Your task to perform on an android device: turn off data saver in the chrome app Image 0: 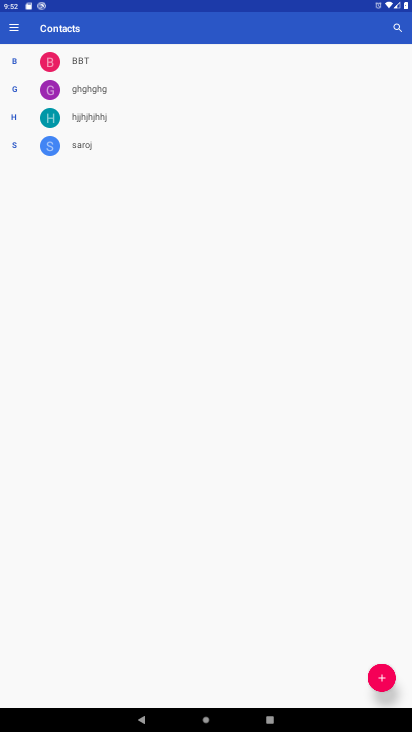
Step 0: press home button
Your task to perform on an android device: turn off data saver in the chrome app Image 1: 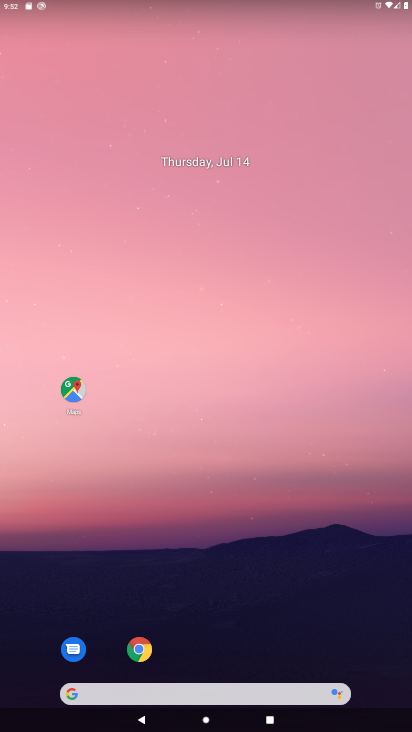
Step 1: click (137, 649)
Your task to perform on an android device: turn off data saver in the chrome app Image 2: 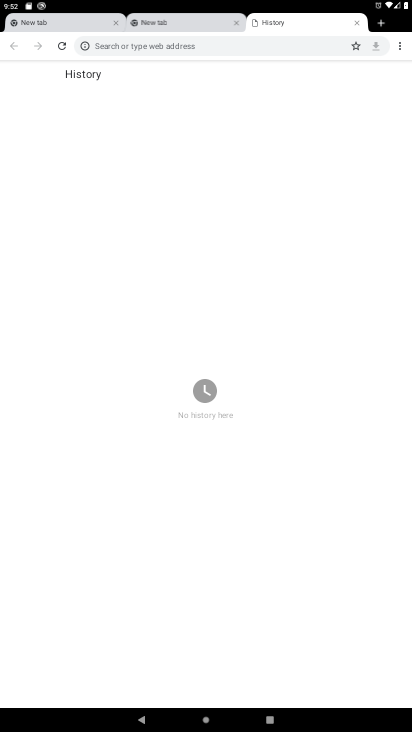
Step 2: click (400, 44)
Your task to perform on an android device: turn off data saver in the chrome app Image 3: 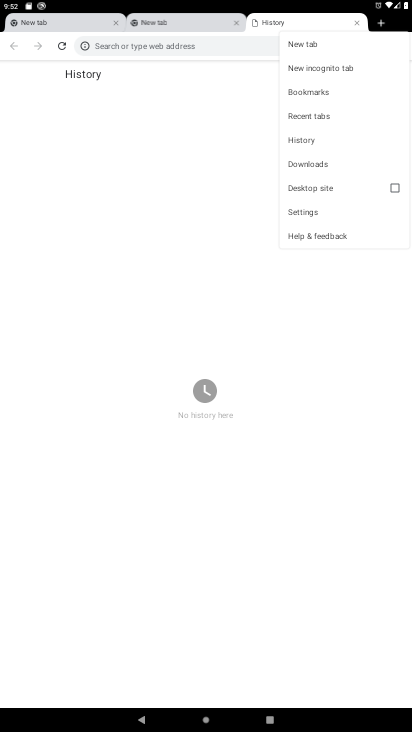
Step 3: click (312, 214)
Your task to perform on an android device: turn off data saver in the chrome app Image 4: 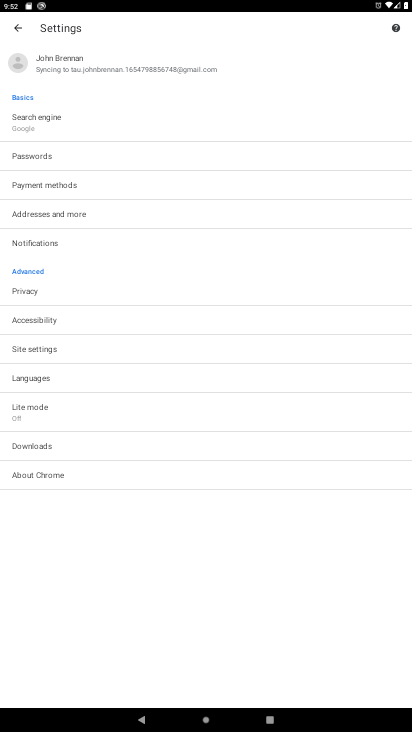
Step 4: click (53, 417)
Your task to perform on an android device: turn off data saver in the chrome app Image 5: 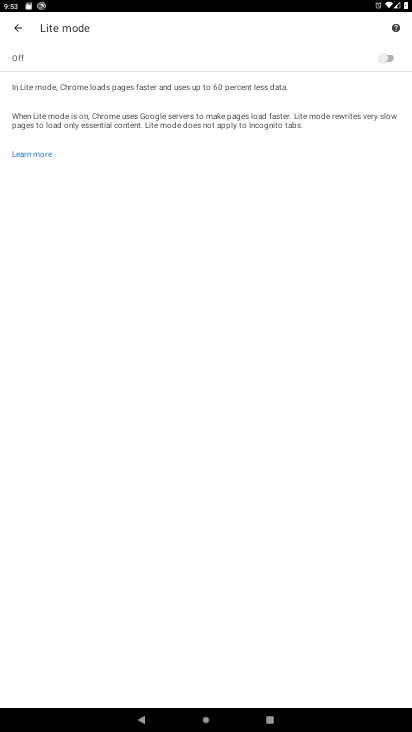
Step 5: task complete